Your task to perform on an android device: find which apps use the phone's location Image 0: 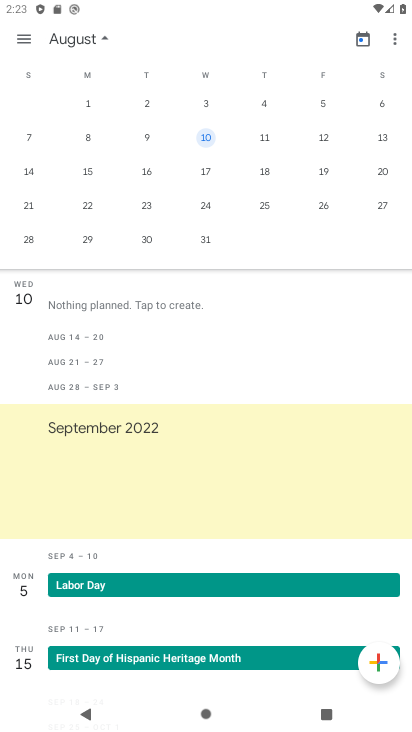
Step 0: press home button
Your task to perform on an android device: find which apps use the phone's location Image 1: 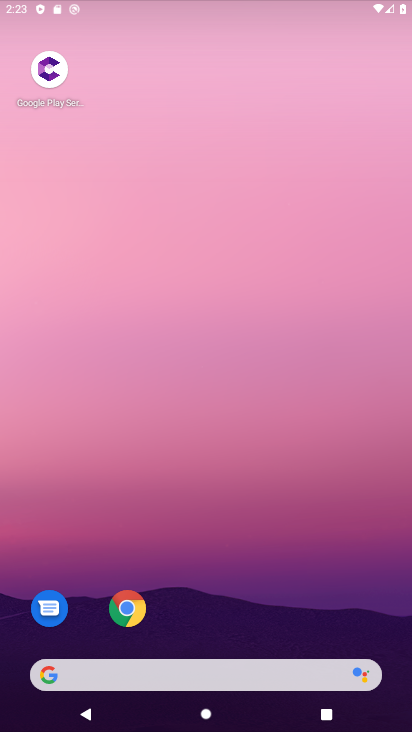
Step 1: drag from (220, 630) to (246, 128)
Your task to perform on an android device: find which apps use the phone's location Image 2: 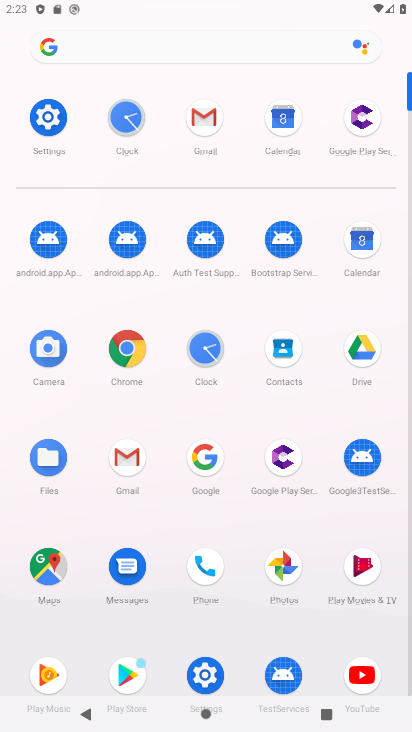
Step 2: click (52, 119)
Your task to perform on an android device: find which apps use the phone's location Image 3: 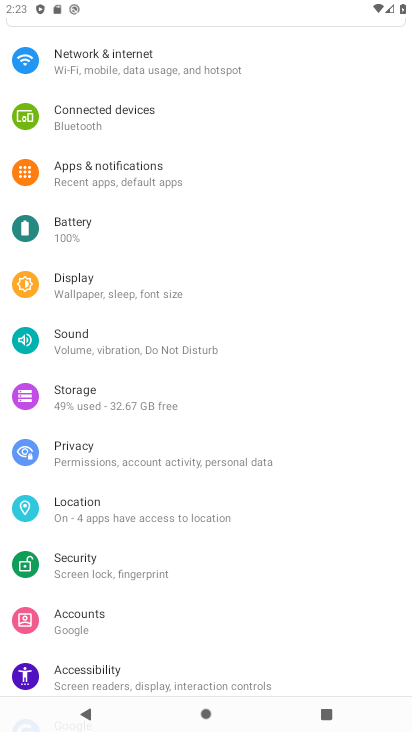
Step 3: click (118, 505)
Your task to perform on an android device: find which apps use the phone's location Image 4: 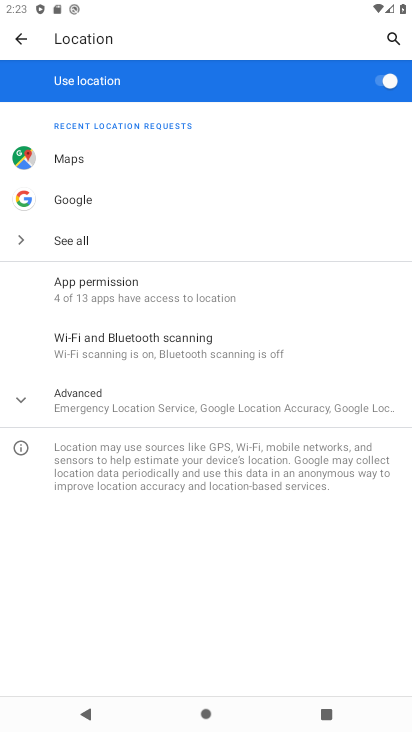
Step 4: click (120, 294)
Your task to perform on an android device: find which apps use the phone's location Image 5: 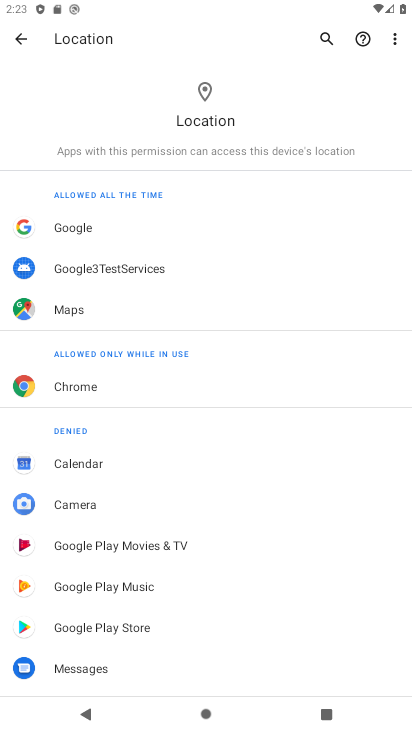
Step 5: task complete